Your task to perform on an android device: Open Chrome and go to settings Image 0: 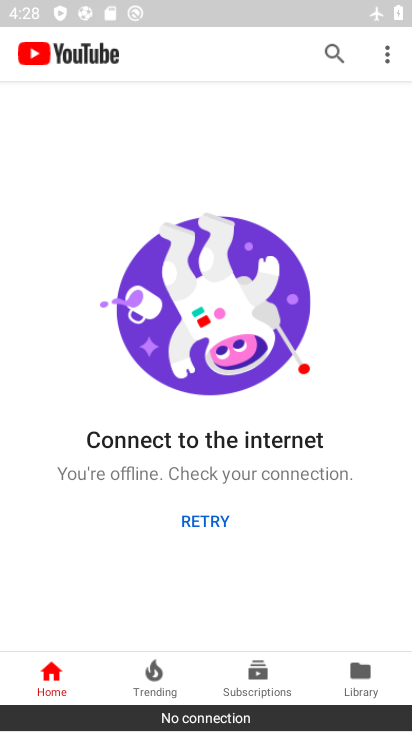
Step 0: press home button
Your task to perform on an android device: Open Chrome and go to settings Image 1: 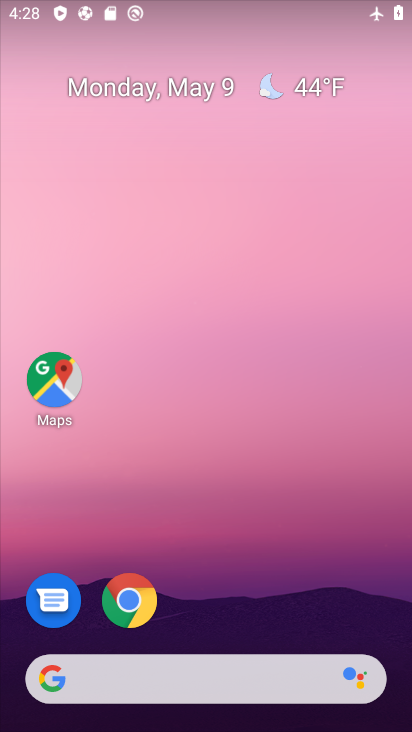
Step 1: drag from (255, 573) to (311, 133)
Your task to perform on an android device: Open Chrome and go to settings Image 2: 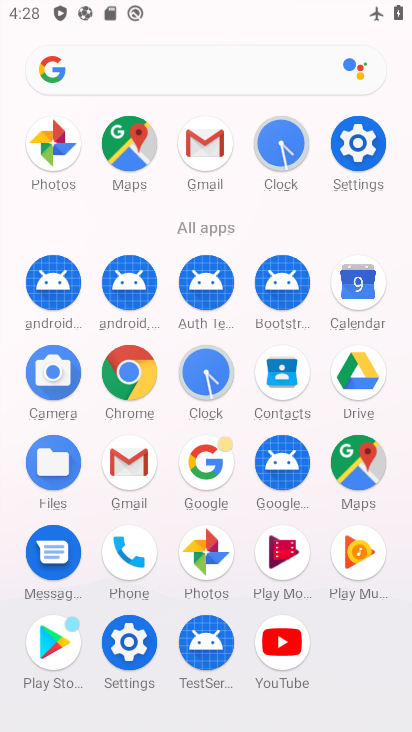
Step 2: click (125, 376)
Your task to perform on an android device: Open Chrome and go to settings Image 3: 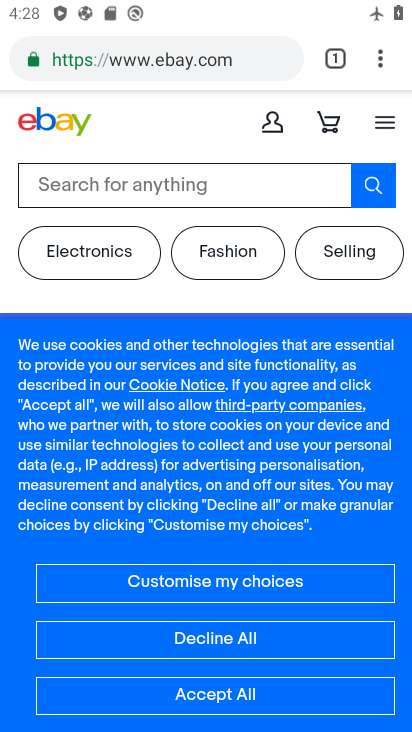
Step 3: click (377, 59)
Your task to perform on an android device: Open Chrome and go to settings Image 4: 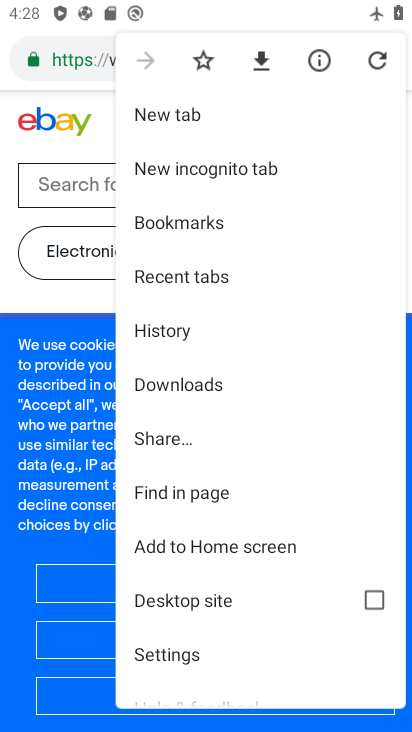
Step 4: click (167, 648)
Your task to perform on an android device: Open Chrome and go to settings Image 5: 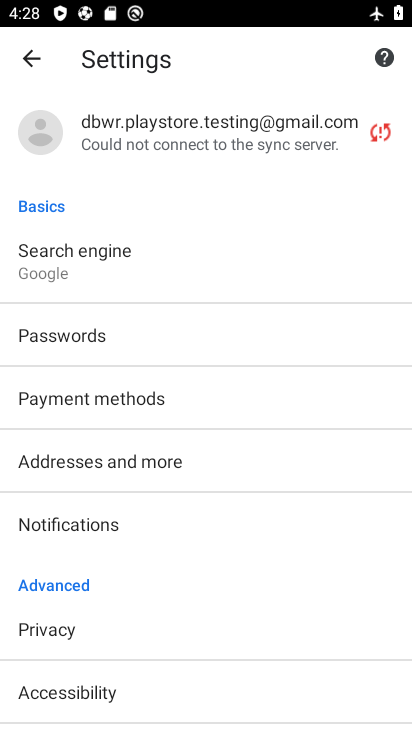
Step 5: task complete